Your task to perform on an android device: turn notification dots off Image 0: 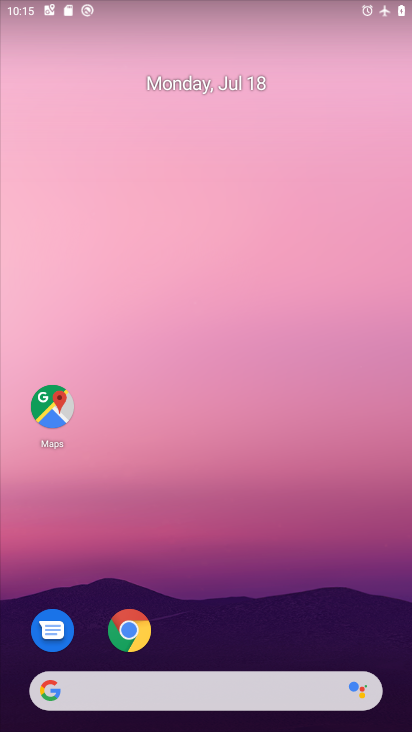
Step 0: drag from (240, 631) to (258, 30)
Your task to perform on an android device: turn notification dots off Image 1: 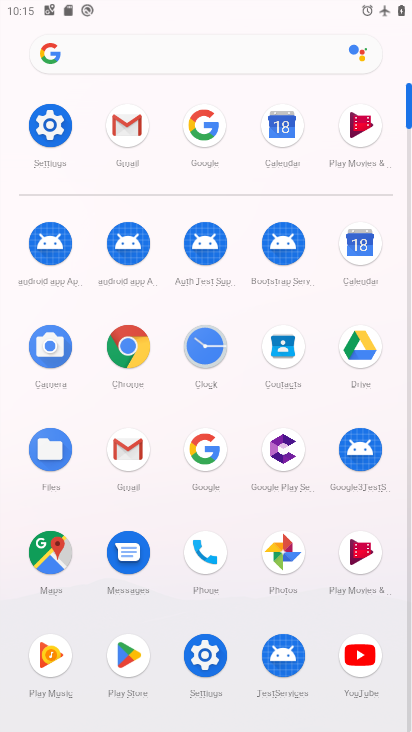
Step 1: click (31, 127)
Your task to perform on an android device: turn notification dots off Image 2: 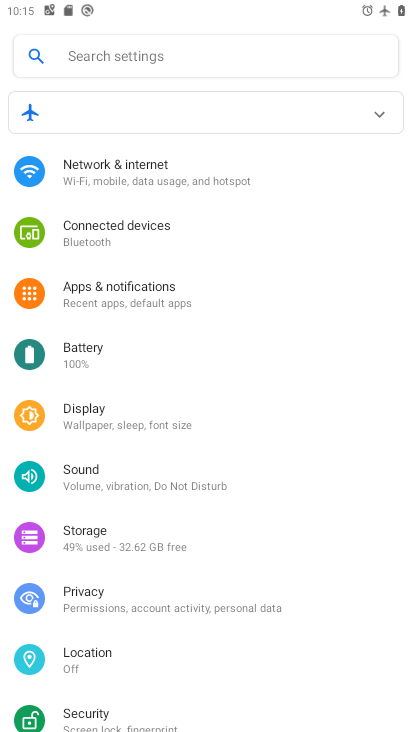
Step 2: click (183, 291)
Your task to perform on an android device: turn notification dots off Image 3: 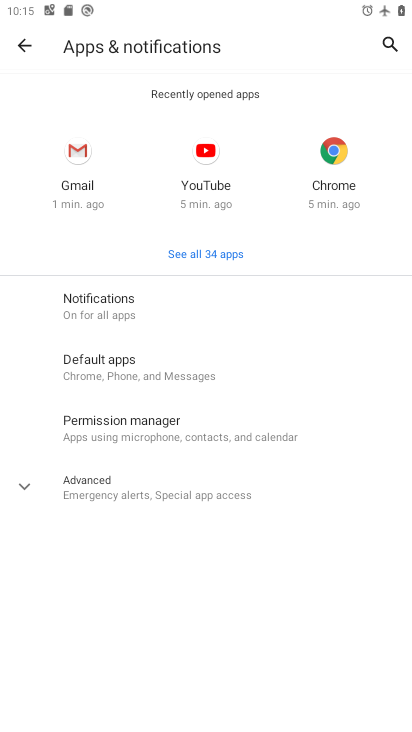
Step 3: click (190, 301)
Your task to perform on an android device: turn notification dots off Image 4: 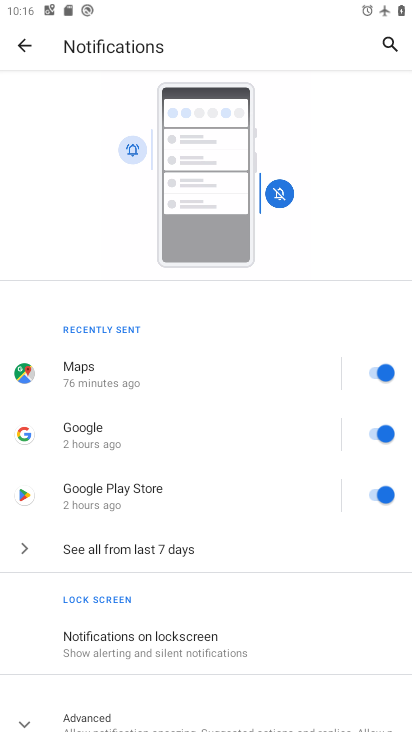
Step 4: click (137, 724)
Your task to perform on an android device: turn notification dots off Image 5: 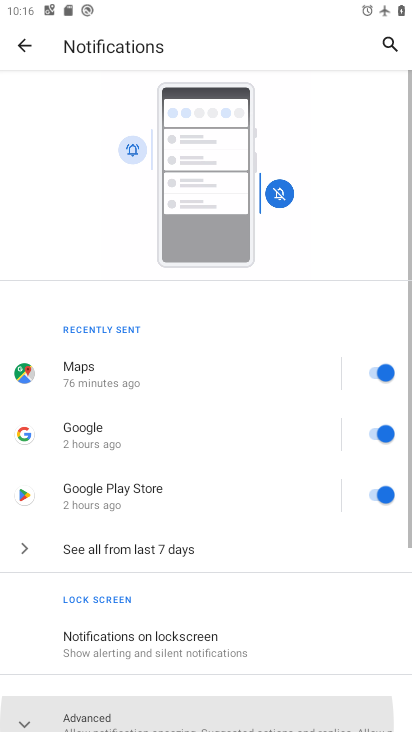
Step 5: task complete